Your task to perform on an android device: toggle improve location accuracy Image 0: 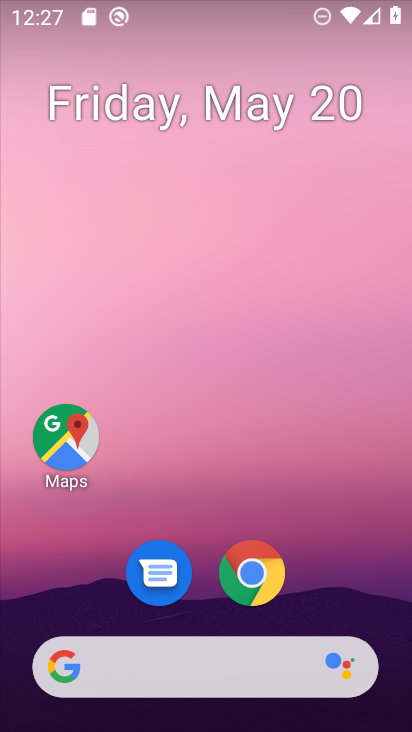
Step 0: drag from (149, 713) to (112, 143)
Your task to perform on an android device: toggle improve location accuracy Image 1: 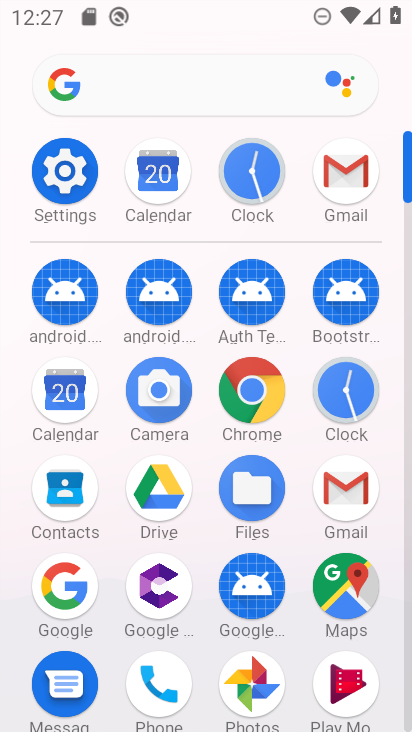
Step 1: click (65, 173)
Your task to perform on an android device: toggle improve location accuracy Image 2: 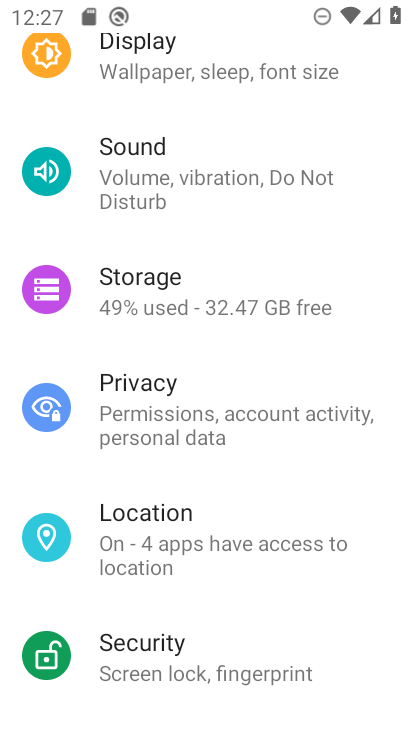
Step 2: click (160, 531)
Your task to perform on an android device: toggle improve location accuracy Image 3: 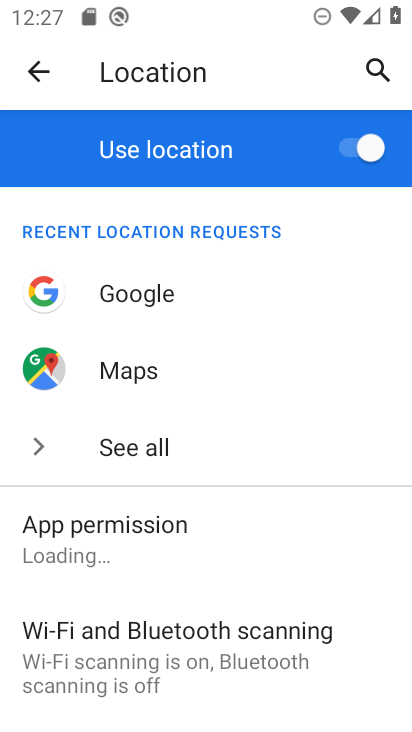
Step 3: drag from (172, 613) to (126, 323)
Your task to perform on an android device: toggle improve location accuracy Image 4: 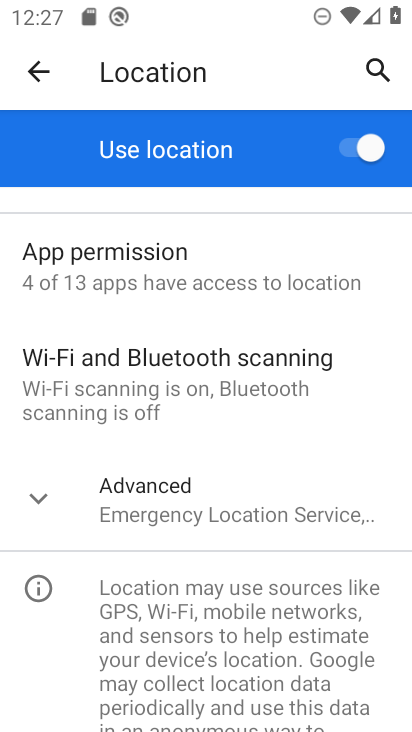
Step 4: click (139, 501)
Your task to perform on an android device: toggle improve location accuracy Image 5: 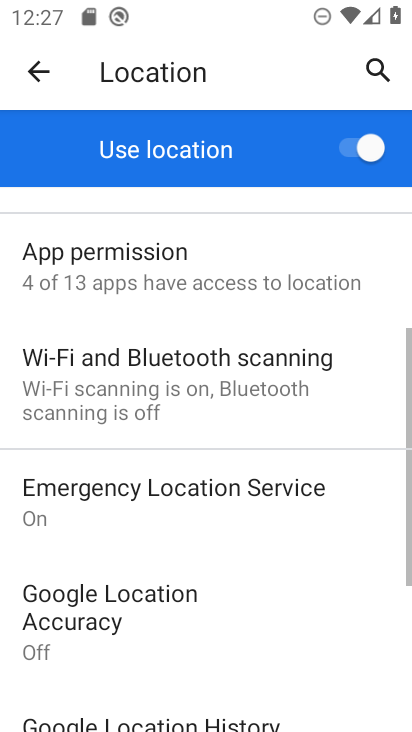
Step 5: drag from (192, 684) to (166, 455)
Your task to perform on an android device: toggle improve location accuracy Image 6: 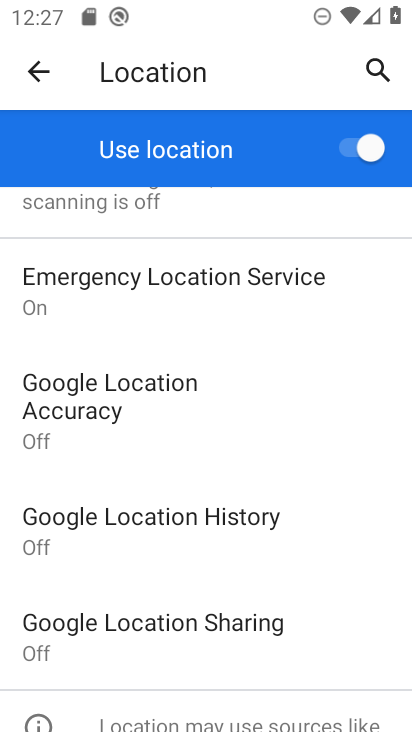
Step 6: click (61, 380)
Your task to perform on an android device: toggle improve location accuracy Image 7: 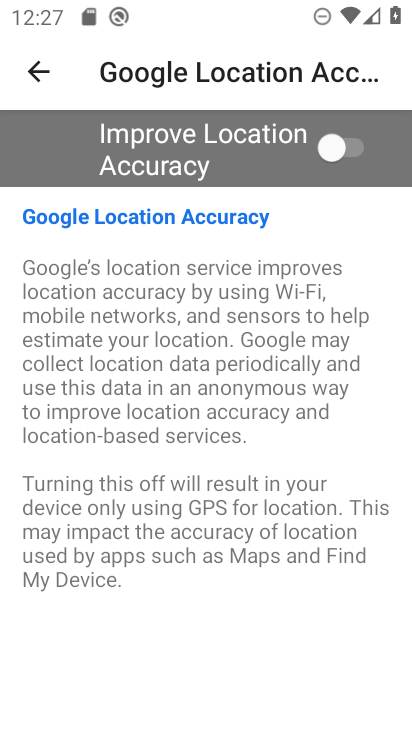
Step 7: click (339, 146)
Your task to perform on an android device: toggle improve location accuracy Image 8: 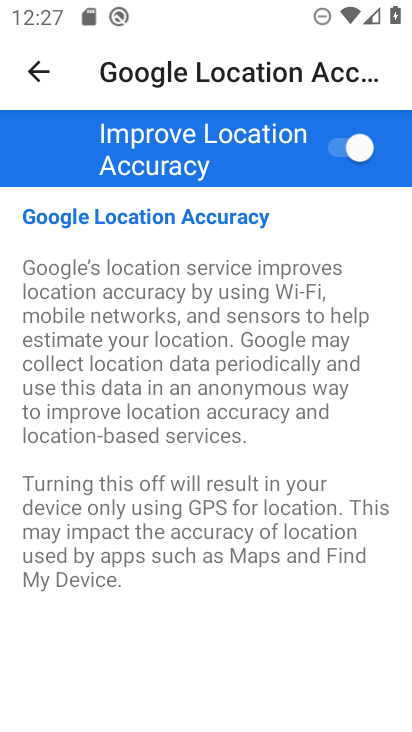
Step 8: task complete